Your task to perform on an android device: Open calendar and show me the fourth week of next month Image 0: 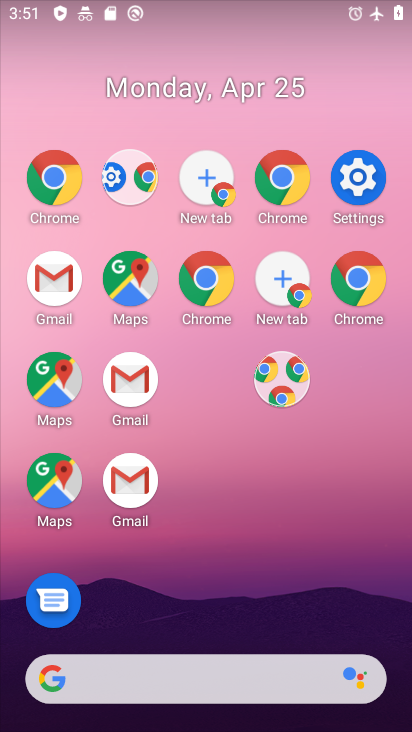
Step 0: drag from (284, 714) to (184, 2)
Your task to perform on an android device: Open calendar and show me the fourth week of next month Image 1: 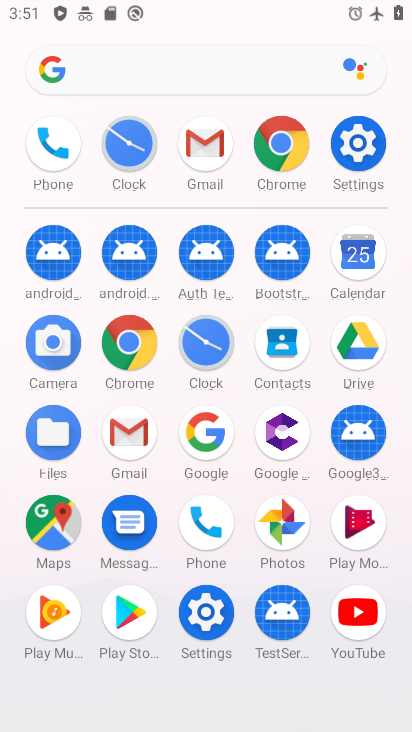
Step 1: click (369, 254)
Your task to perform on an android device: Open calendar and show me the fourth week of next month Image 2: 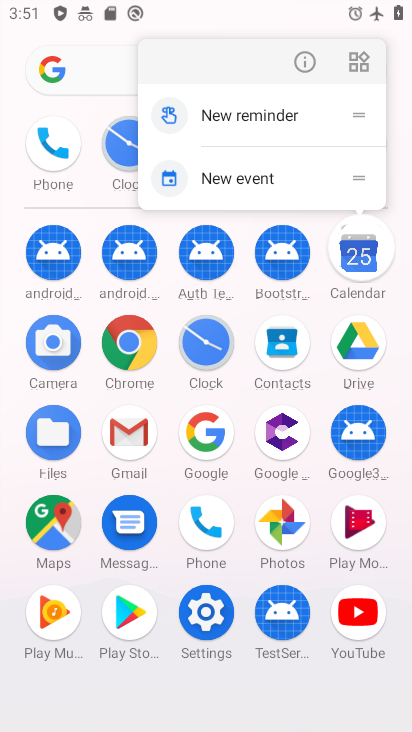
Step 2: click (353, 254)
Your task to perform on an android device: Open calendar and show me the fourth week of next month Image 3: 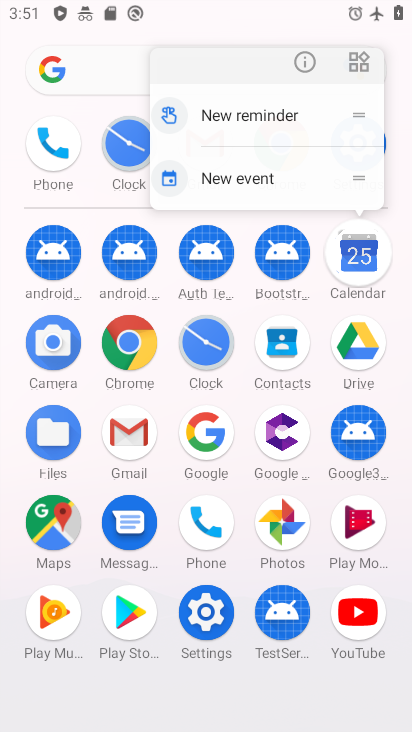
Step 3: click (358, 259)
Your task to perform on an android device: Open calendar and show me the fourth week of next month Image 4: 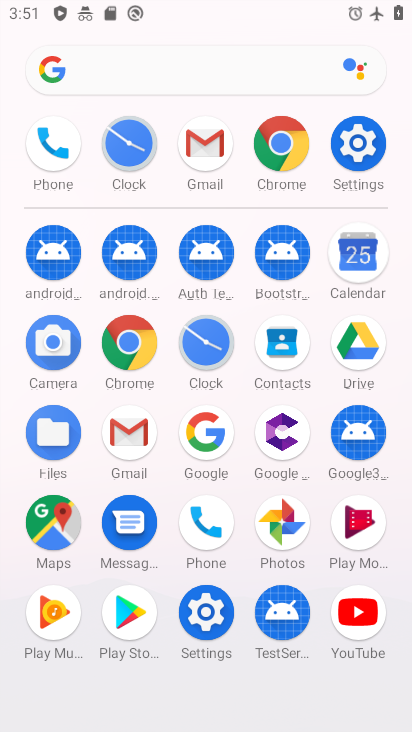
Step 4: click (337, 254)
Your task to perform on an android device: Open calendar and show me the fourth week of next month Image 5: 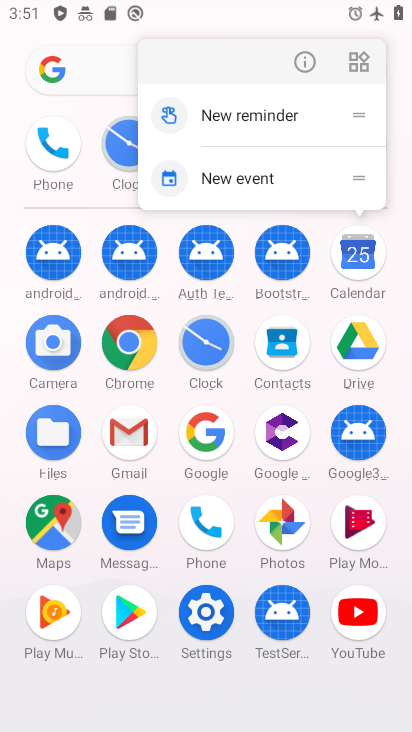
Step 5: click (355, 259)
Your task to perform on an android device: Open calendar and show me the fourth week of next month Image 6: 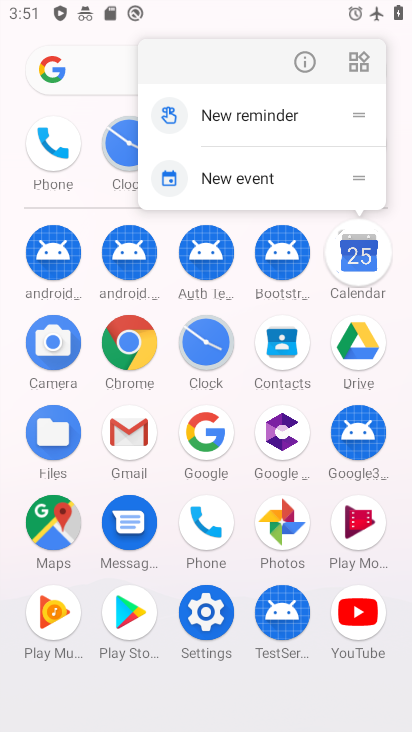
Step 6: click (358, 258)
Your task to perform on an android device: Open calendar and show me the fourth week of next month Image 7: 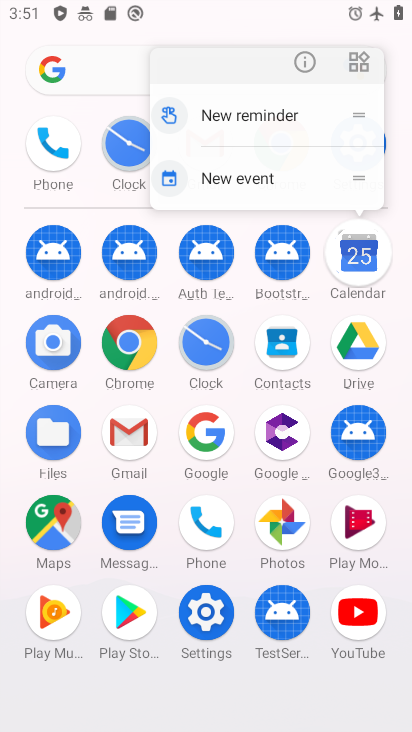
Step 7: click (356, 259)
Your task to perform on an android device: Open calendar and show me the fourth week of next month Image 8: 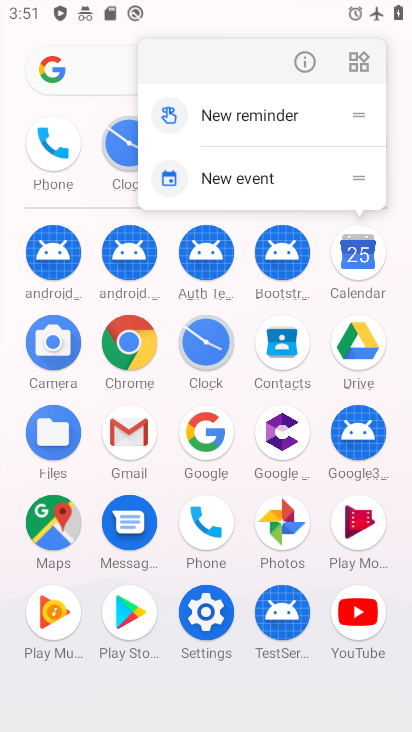
Step 8: click (362, 267)
Your task to perform on an android device: Open calendar and show me the fourth week of next month Image 9: 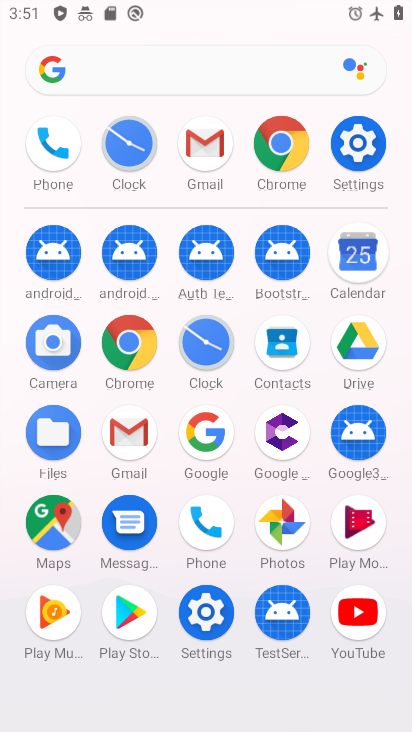
Step 9: click (365, 270)
Your task to perform on an android device: Open calendar and show me the fourth week of next month Image 10: 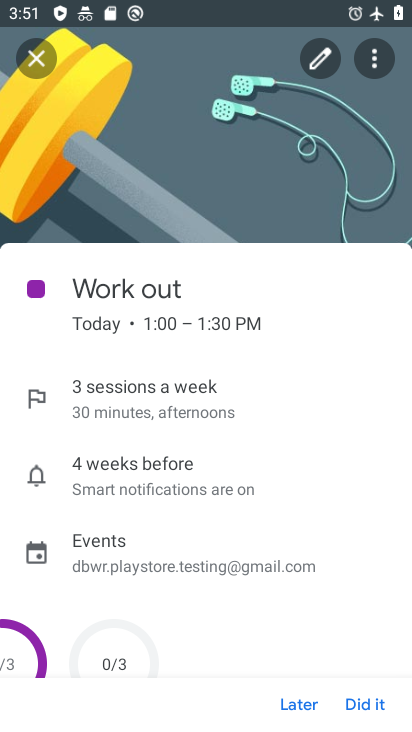
Step 10: click (43, 53)
Your task to perform on an android device: Open calendar and show me the fourth week of next month Image 11: 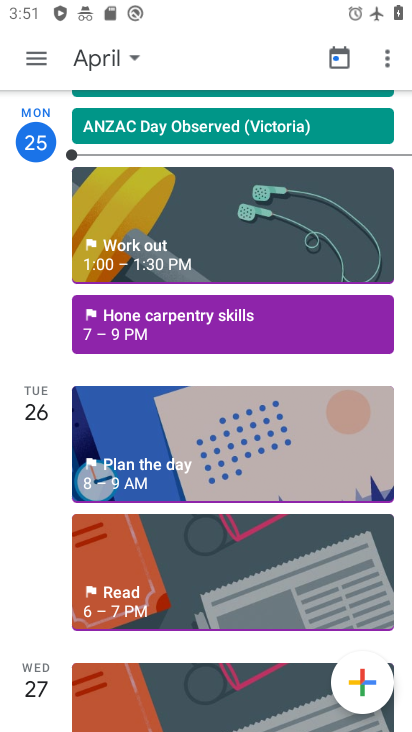
Step 11: drag from (130, 57) to (26, 207)
Your task to perform on an android device: Open calendar and show me the fourth week of next month Image 12: 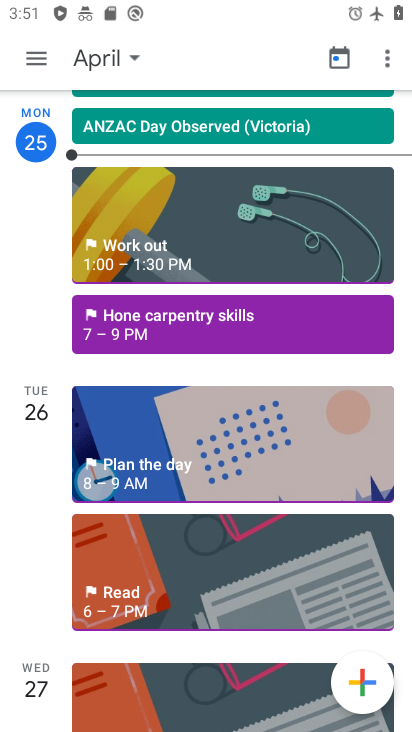
Step 12: click (132, 54)
Your task to perform on an android device: Open calendar and show me the fourth week of next month Image 13: 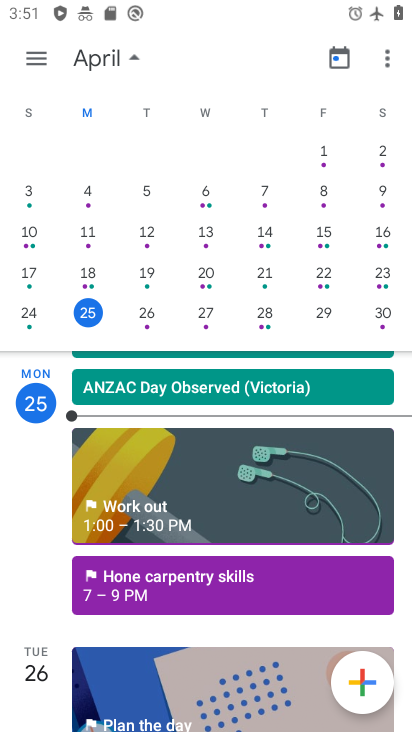
Step 13: drag from (189, 283) to (17, 268)
Your task to perform on an android device: Open calendar and show me the fourth week of next month Image 14: 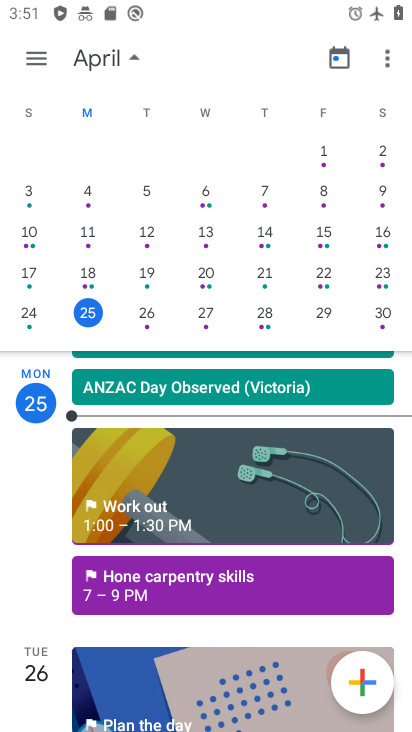
Step 14: drag from (215, 277) to (19, 202)
Your task to perform on an android device: Open calendar and show me the fourth week of next month Image 15: 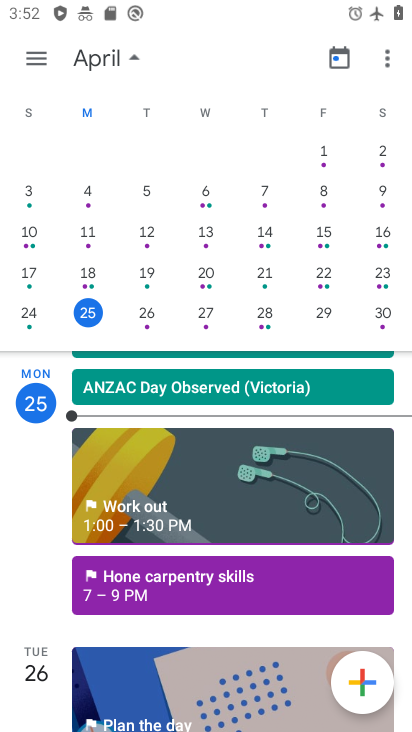
Step 15: drag from (104, 306) to (1, 281)
Your task to perform on an android device: Open calendar and show me the fourth week of next month Image 16: 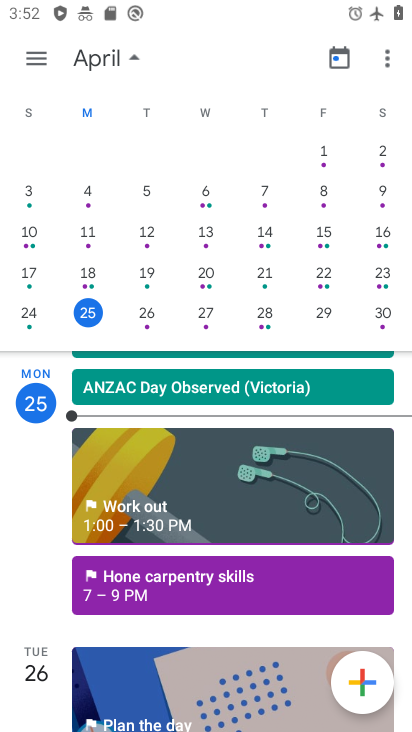
Step 16: drag from (89, 298) to (17, 253)
Your task to perform on an android device: Open calendar and show me the fourth week of next month Image 17: 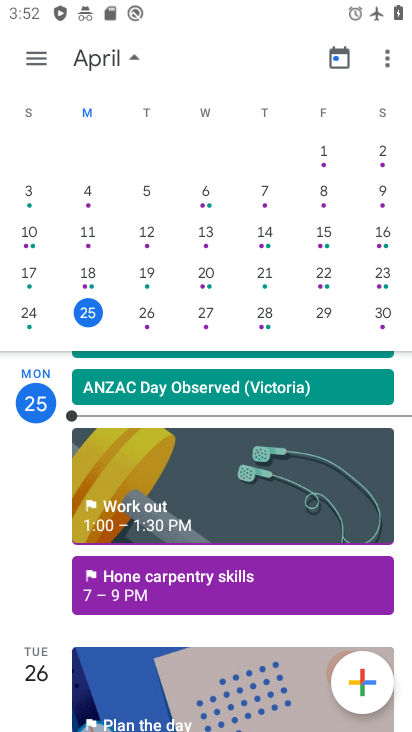
Step 17: click (37, 294)
Your task to perform on an android device: Open calendar and show me the fourth week of next month Image 18: 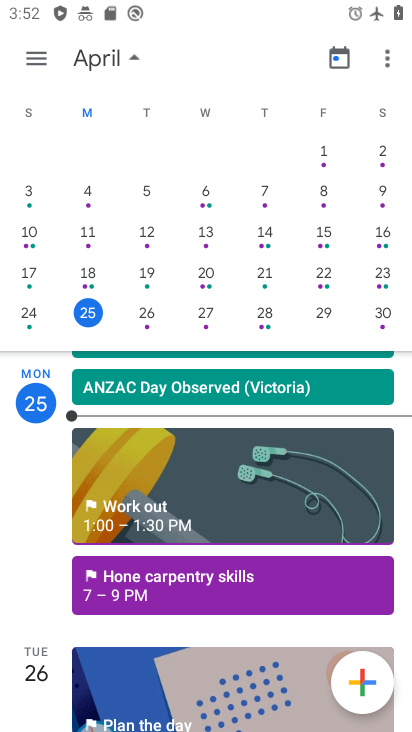
Step 18: drag from (212, 306) to (17, 297)
Your task to perform on an android device: Open calendar and show me the fourth week of next month Image 19: 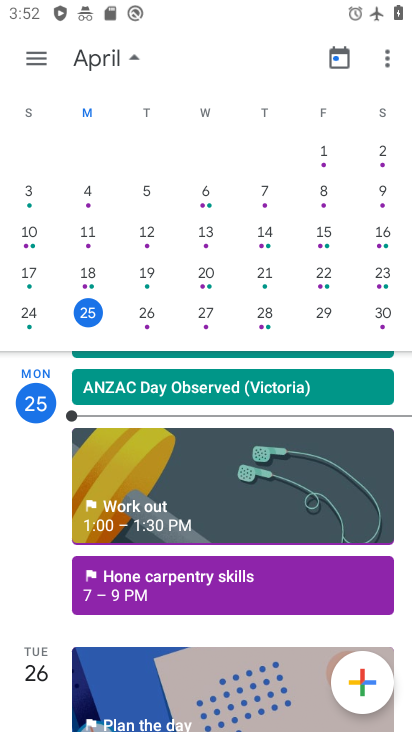
Step 19: drag from (202, 288) to (103, 272)
Your task to perform on an android device: Open calendar and show me the fourth week of next month Image 20: 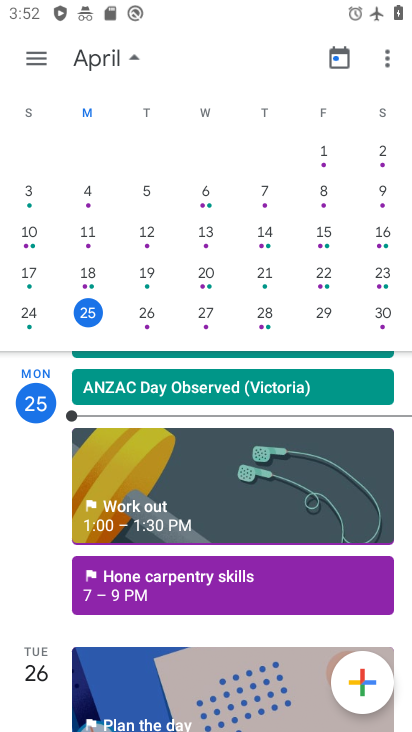
Step 20: drag from (211, 319) to (24, 269)
Your task to perform on an android device: Open calendar and show me the fourth week of next month Image 21: 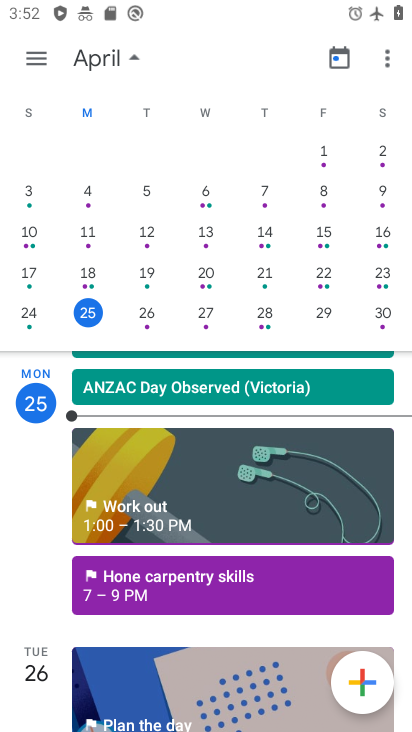
Step 21: drag from (216, 268) to (26, 290)
Your task to perform on an android device: Open calendar and show me the fourth week of next month Image 22: 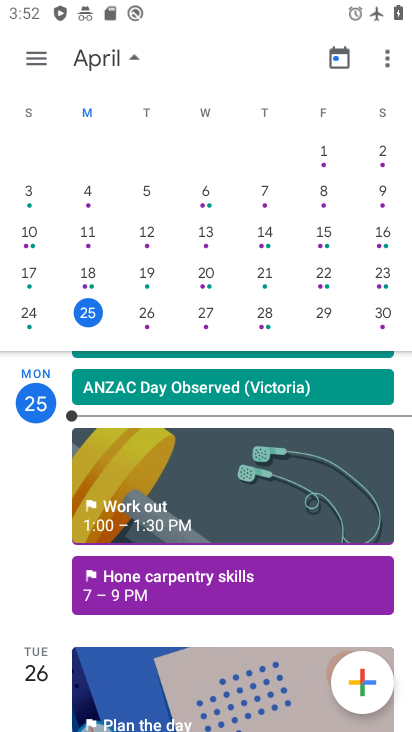
Step 22: drag from (44, 309) to (12, 256)
Your task to perform on an android device: Open calendar and show me the fourth week of next month Image 23: 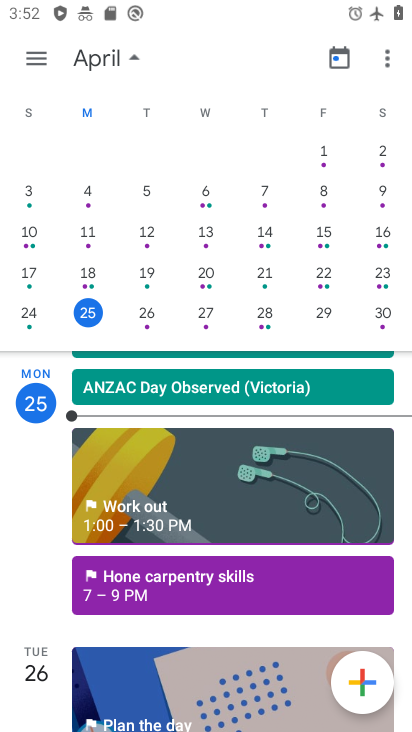
Step 23: drag from (95, 283) to (69, 213)
Your task to perform on an android device: Open calendar and show me the fourth week of next month Image 24: 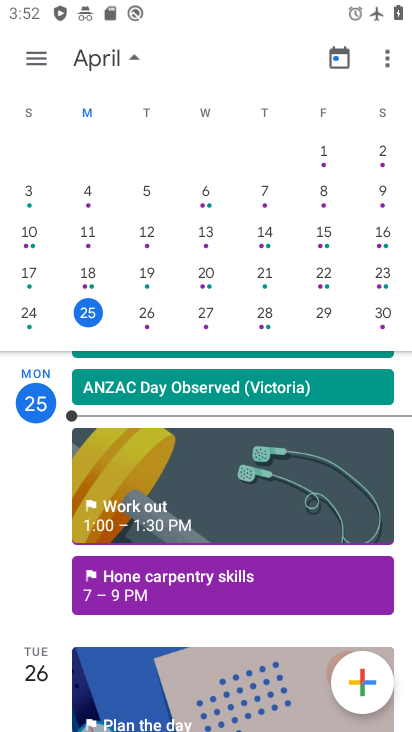
Step 24: click (45, 294)
Your task to perform on an android device: Open calendar and show me the fourth week of next month Image 25: 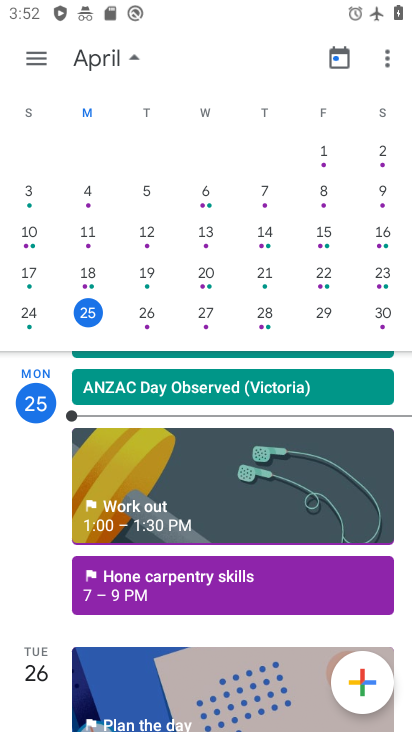
Step 25: drag from (222, 304) to (33, 270)
Your task to perform on an android device: Open calendar and show me the fourth week of next month Image 26: 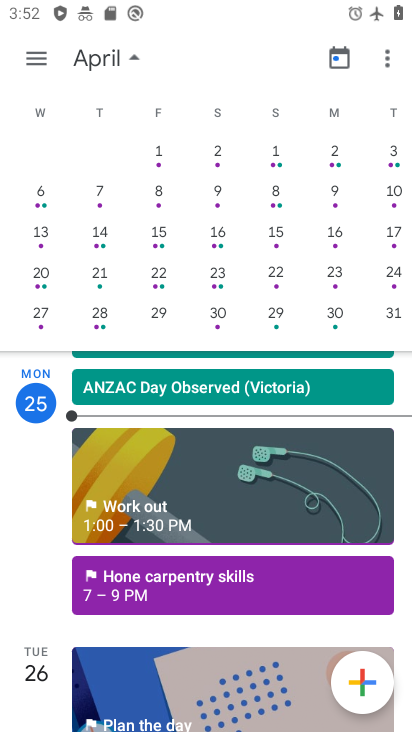
Step 26: drag from (239, 299) to (24, 279)
Your task to perform on an android device: Open calendar and show me the fourth week of next month Image 27: 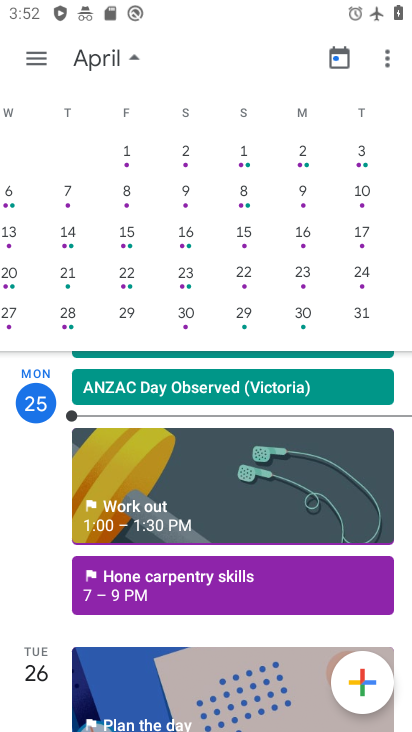
Step 27: drag from (45, 259) to (9, 259)
Your task to perform on an android device: Open calendar and show me the fourth week of next month Image 28: 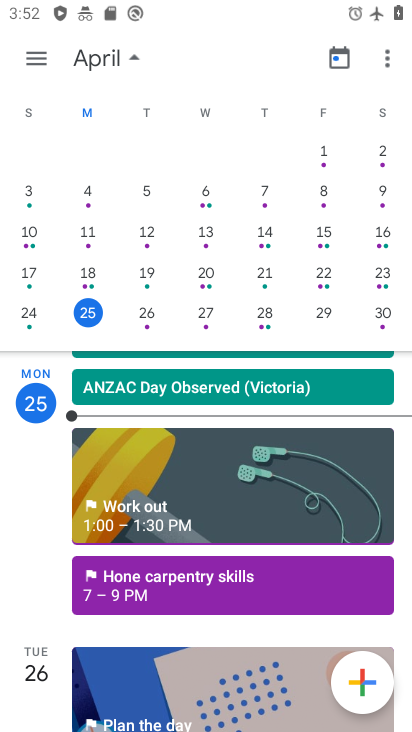
Step 28: drag from (3, 250) to (55, 278)
Your task to perform on an android device: Open calendar and show me the fourth week of next month Image 29: 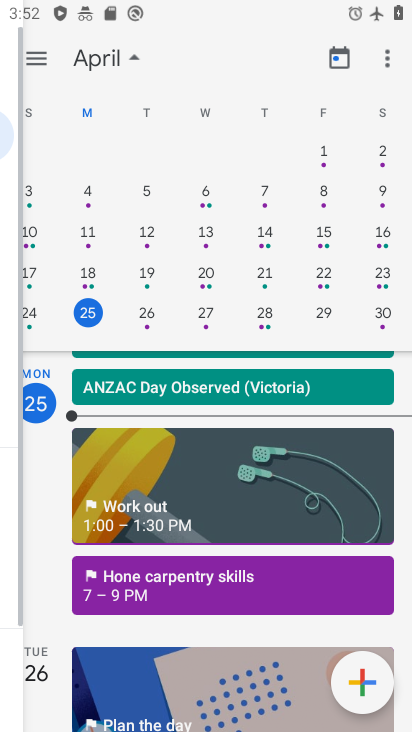
Step 29: drag from (97, 279) to (11, 309)
Your task to perform on an android device: Open calendar and show me the fourth week of next month Image 30: 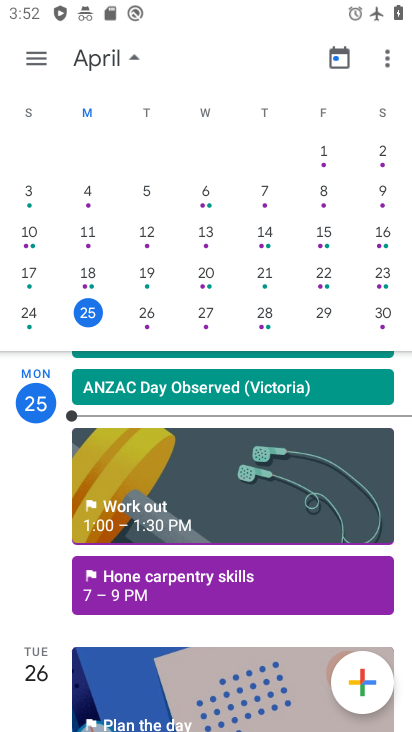
Step 30: drag from (0, 265) to (63, 247)
Your task to perform on an android device: Open calendar and show me the fourth week of next month Image 31: 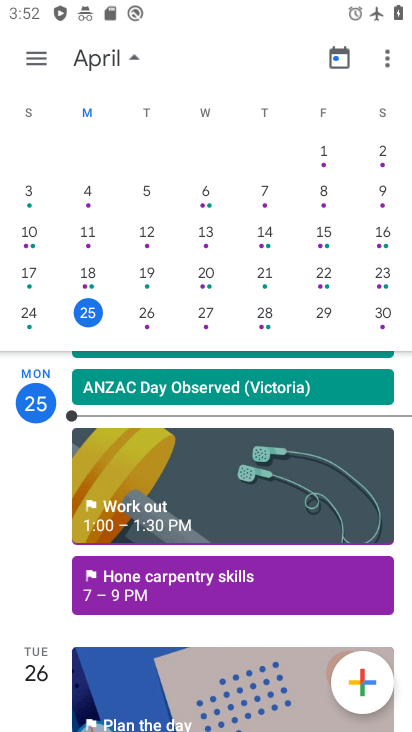
Step 31: click (19, 266)
Your task to perform on an android device: Open calendar and show me the fourth week of next month Image 32: 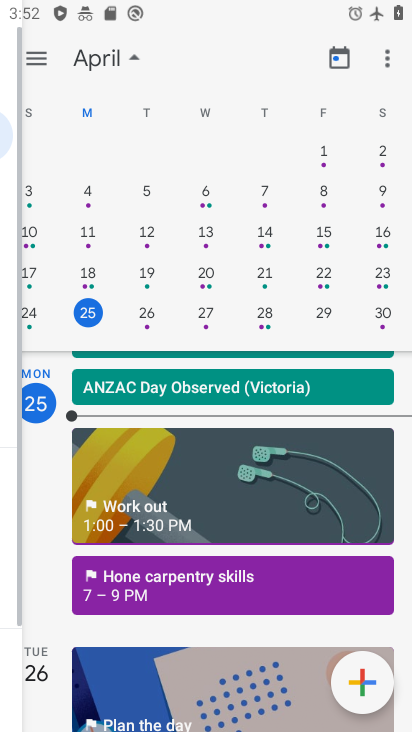
Step 32: drag from (38, 312) to (43, 271)
Your task to perform on an android device: Open calendar and show me the fourth week of next month Image 33: 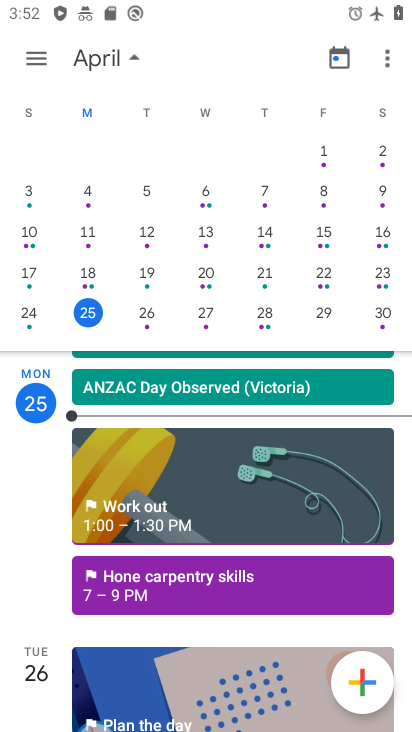
Step 33: click (152, 282)
Your task to perform on an android device: Open calendar and show me the fourth week of next month Image 34: 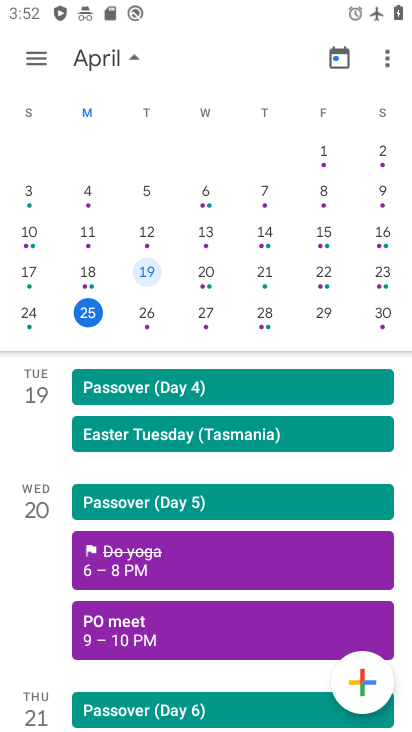
Step 34: drag from (9, 323) to (26, 264)
Your task to perform on an android device: Open calendar and show me the fourth week of next month Image 35: 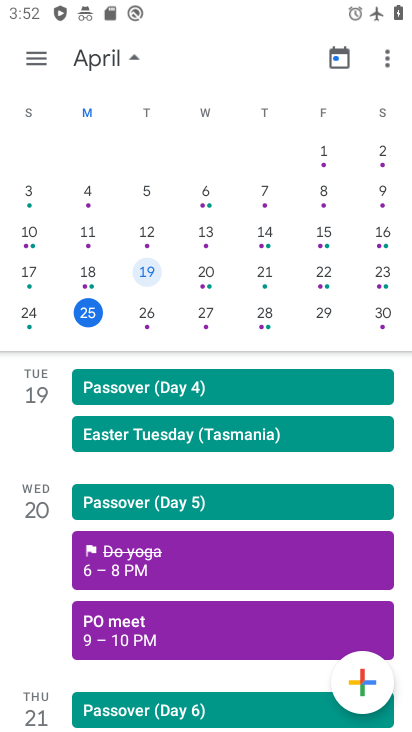
Step 35: drag from (291, 297) to (7, 249)
Your task to perform on an android device: Open calendar and show me the fourth week of next month Image 36: 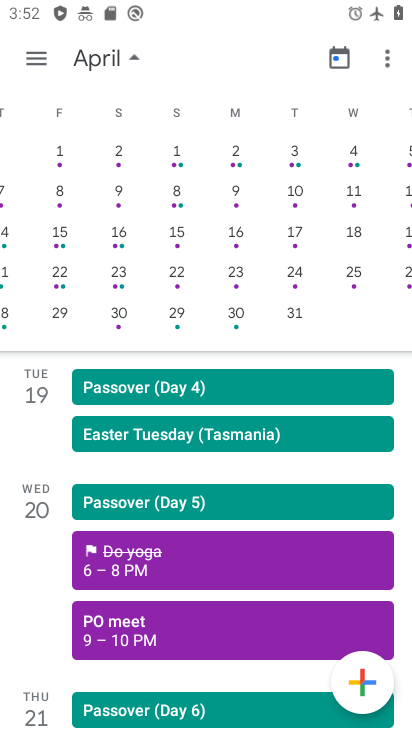
Step 36: drag from (241, 232) to (97, 251)
Your task to perform on an android device: Open calendar and show me the fourth week of next month Image 37: 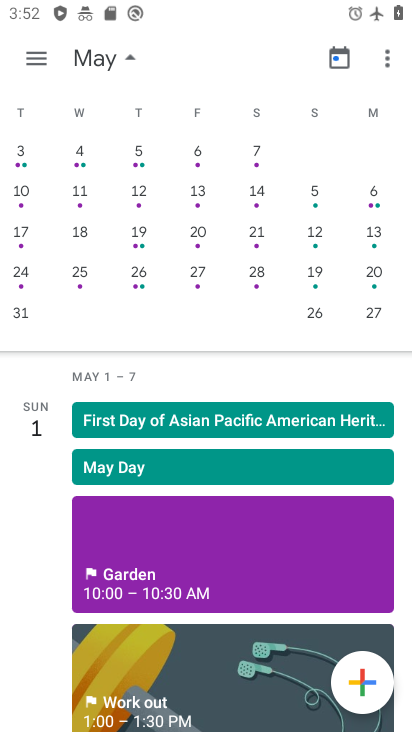
Step 37: drag from (26, 246) to (1, 142)
Your task to perform on an android device: Open calendar and show me the fourth week of next month Image 38: 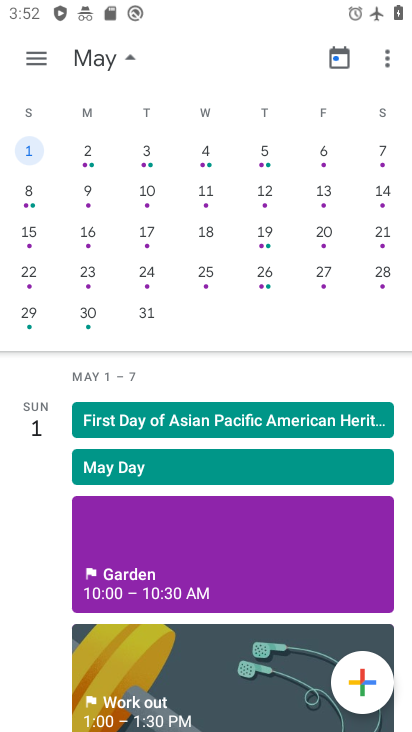
Step 38: drag from (87, 268) to (108, 322)
Your task to perform on an android device: Open calendar and show me the fourth week of next month Image 39: 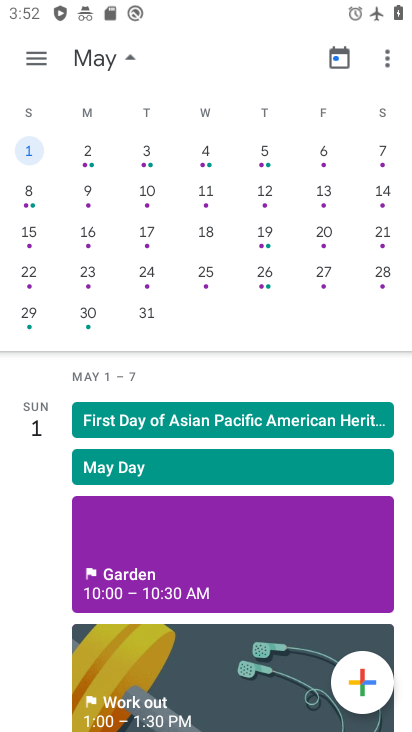
Step 39: click (85, 269)
Your task to perform on an android device: Open calendar and show me the fourth week of next month Image 40: 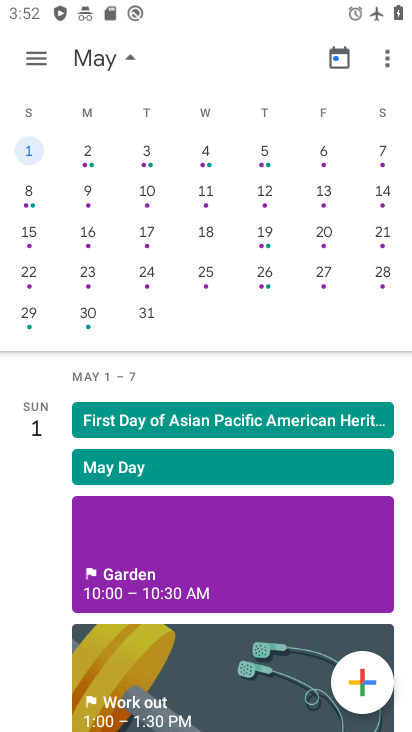
Step 40: click (85, 269)
Your task to perform on an android device: Open calendar and show me the fourth week of next month Image 41: 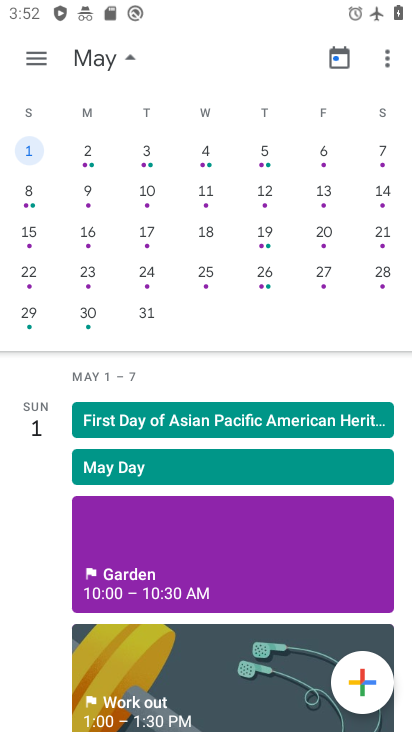
Step 41: click (94, 269)
Your task to perform on an android device: Open calendar and show me the fourth week of next month Image 42: 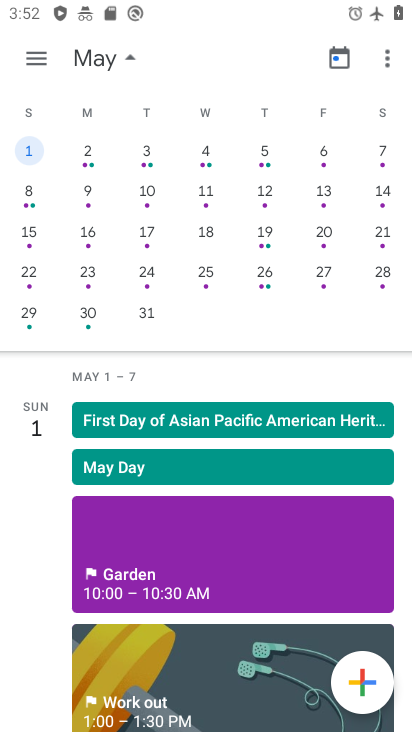
Step 42: click (90, 271)
Your task to perform on an android device: Open calendar and show me the fourth week of next month Image 43: 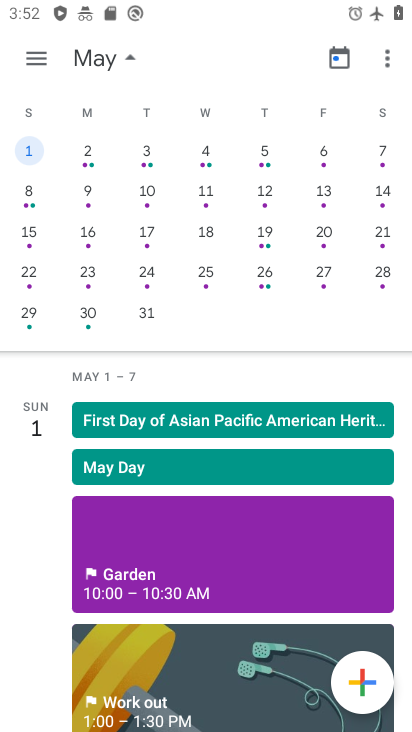
Step 43: click (61, 239)
Your task to perform on an android device: Open calendar and show me the fourth week of next month Image 44: 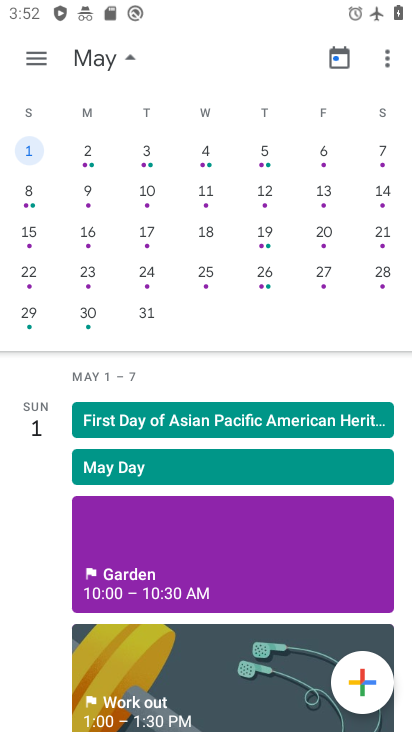
Step 44: click (102, 270)
Your task to perform on an android device: Open calendar and show me the fourth week of next month Image 45: 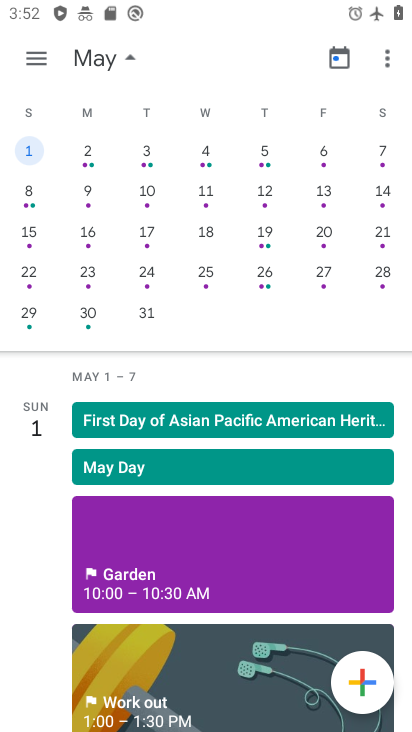
Step 45: click (86, 268)
Your task to perform on an android device: Open calendar and show me the fourth week of next month Image 46: 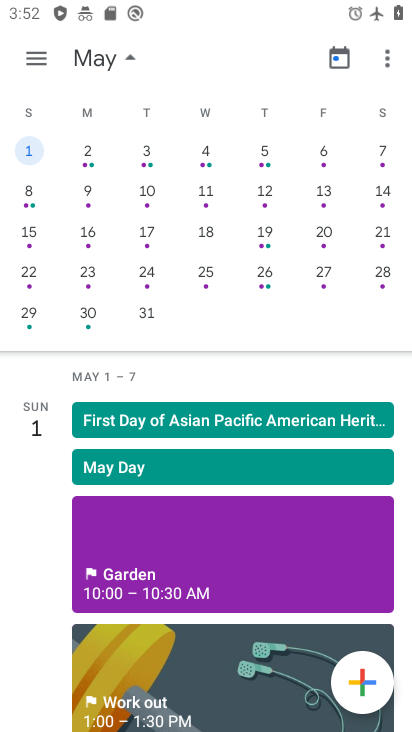
Step 46: click (95, 262)
Your task to perform on an android device: Open calendar and show me the fourth week of next month Image 47: 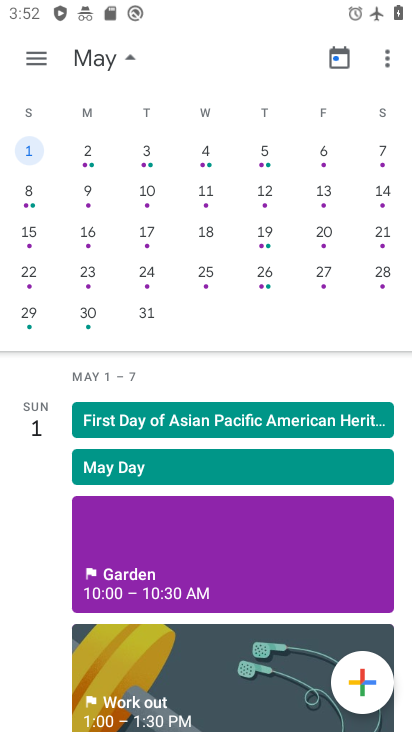
Step 47: drag from (75, 252) to (88, 315)
Your task to perform on an android device: Open calendar and show me the fourth week of next month Image 48: 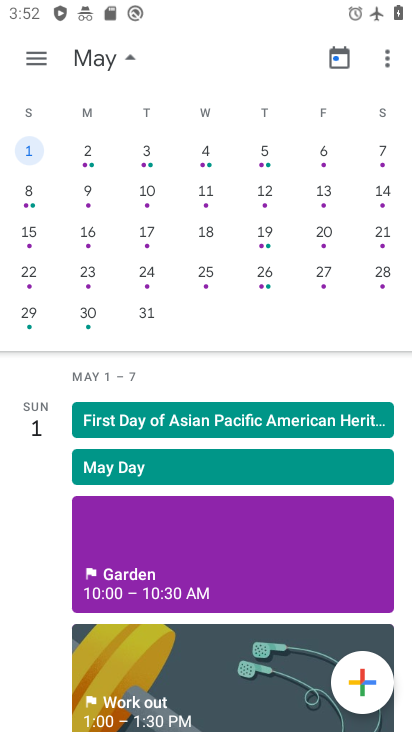
Step 48: click (85, 277)
Your task to perform on an android device: Open calendar and show me the fourth week of next month Image 49: 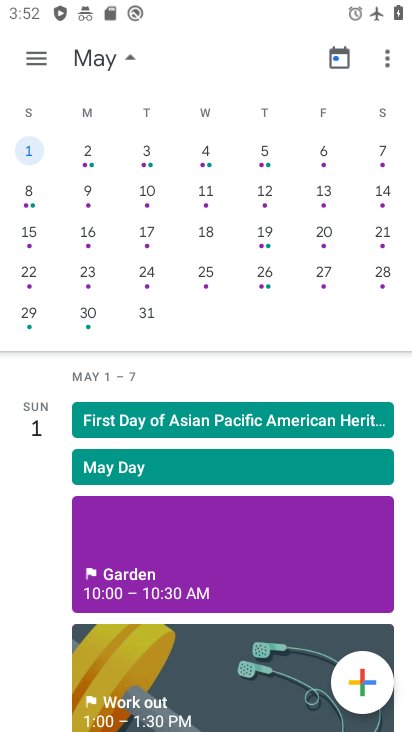
Step 49: click (91, 269)
Your task to perform on an android device: Open calendar and show me the fourth week of next month Image 50: 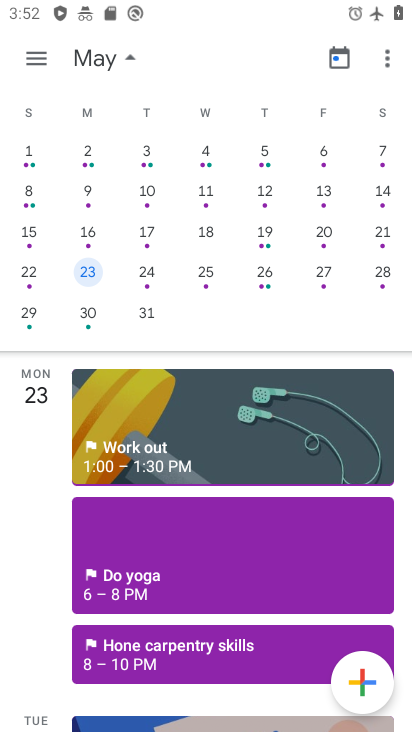
Step 50: click (87, 271)
Your task to perform on an android device: Open calendar and show me the fourth week of next month Image 51: 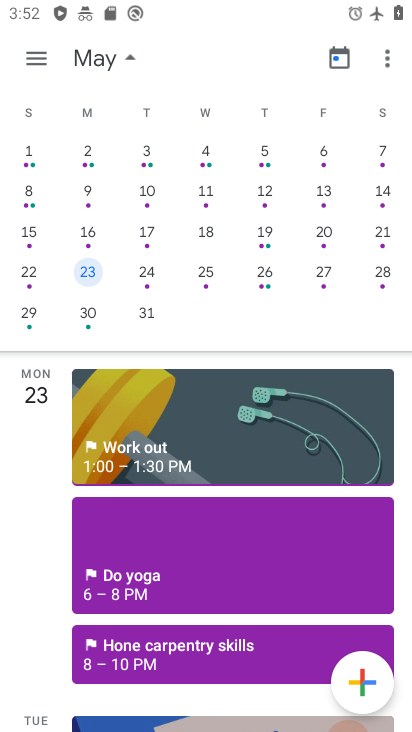
Step 51: task complete